Your task to perform on an android device: uninstall "Google Play services" Image 0: 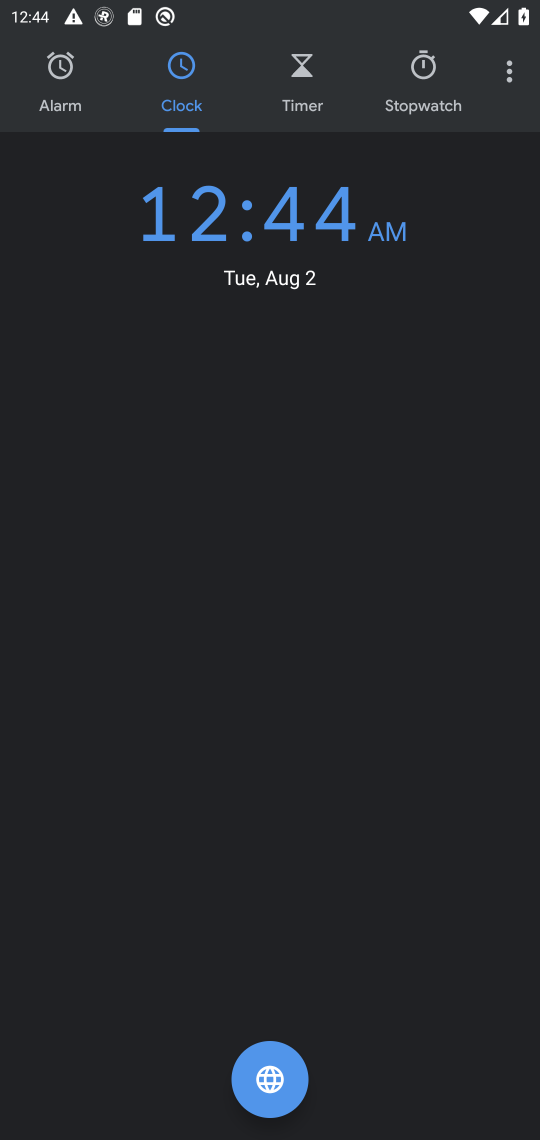
Step 0: press home button
Your task to perform on an android device: uninstall "Google Play services" Image 1: 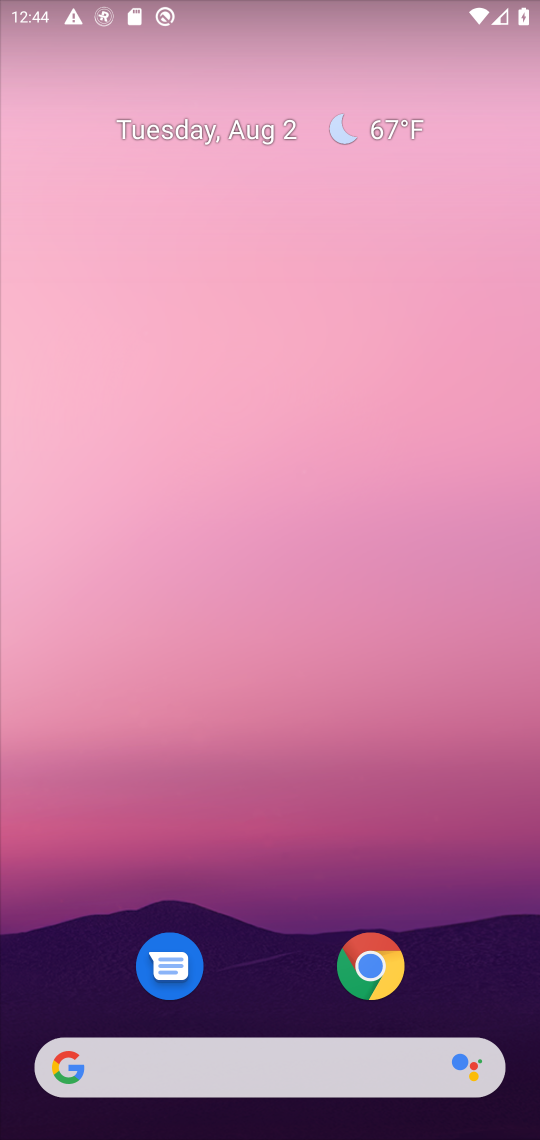
Step 1: drag from (267, 846) to (336, 139)
Your task to perform on an android device: uninstall "Google Play services" Image 2: 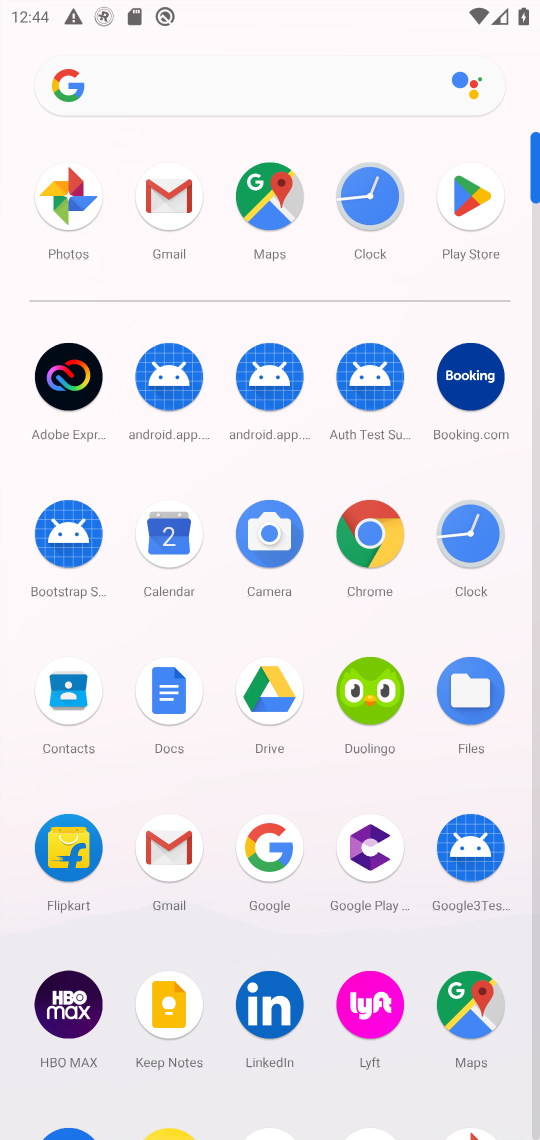
Step 2: click (478, 216)
Your task to perform on an android device: uninstall "Google Play services" Image 3: 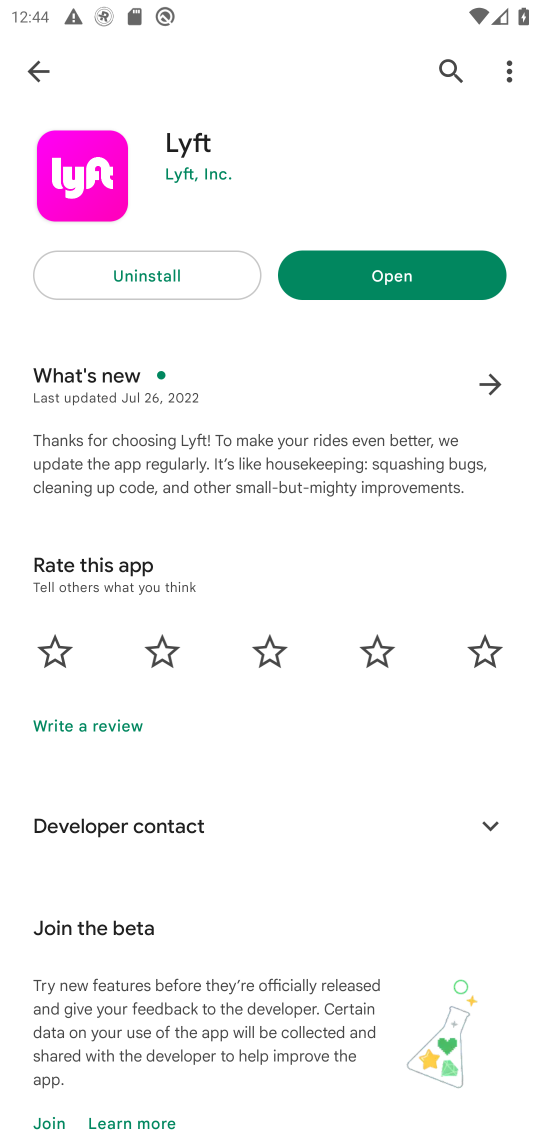
Step 3: click (452, 73)
Your task to perform on an android device: uninstall "Google Play services" Image 4: 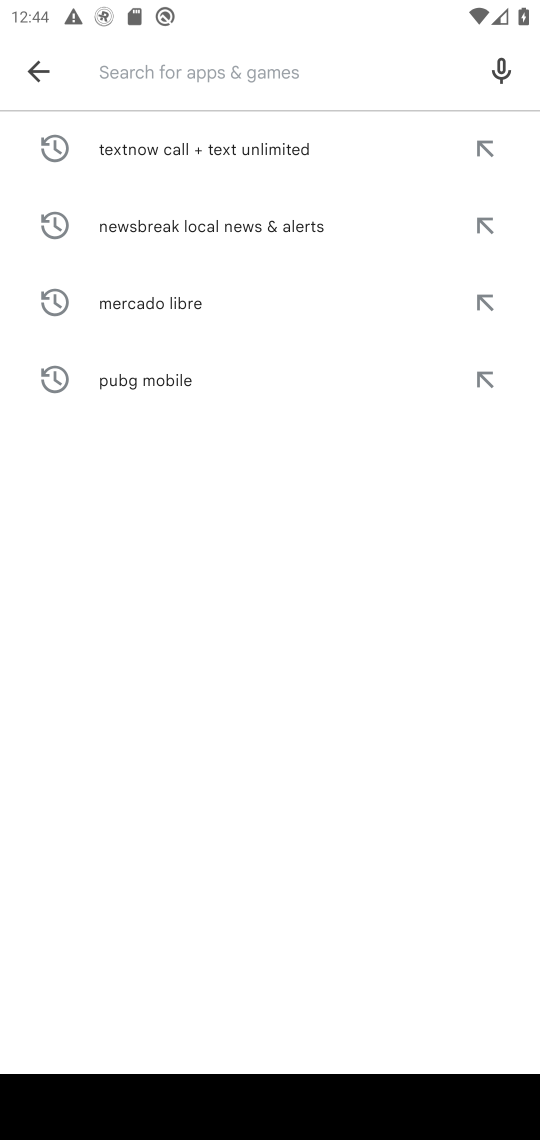
Step 4: click (262, 71)
Your task to perform on an android device: uninstall "Google Play services" Image 5: 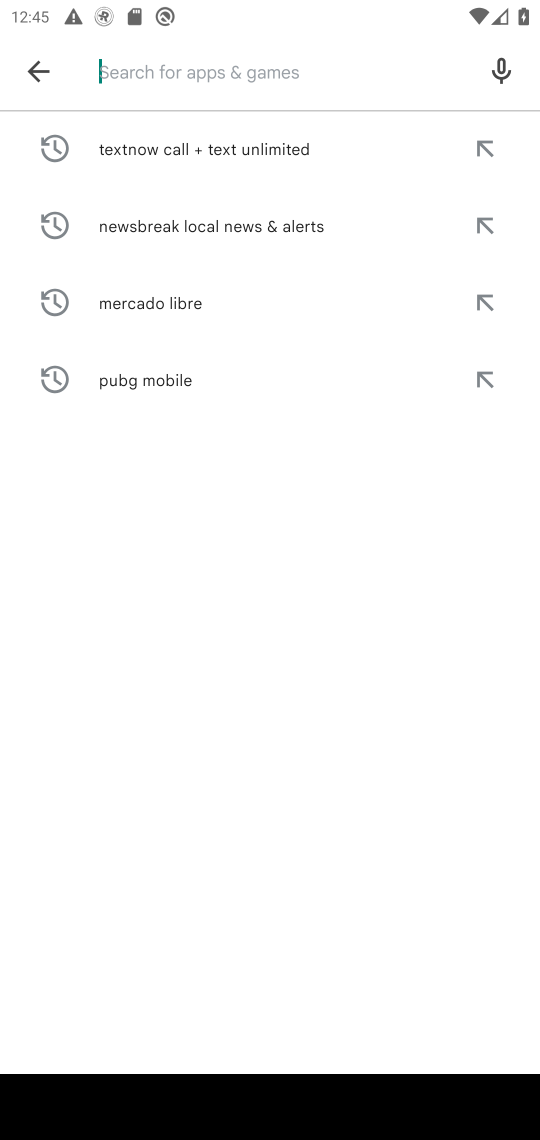
Step 5: type "google play services"
Your task to perform on an android device: uninstall "Google Play services" Image 6: 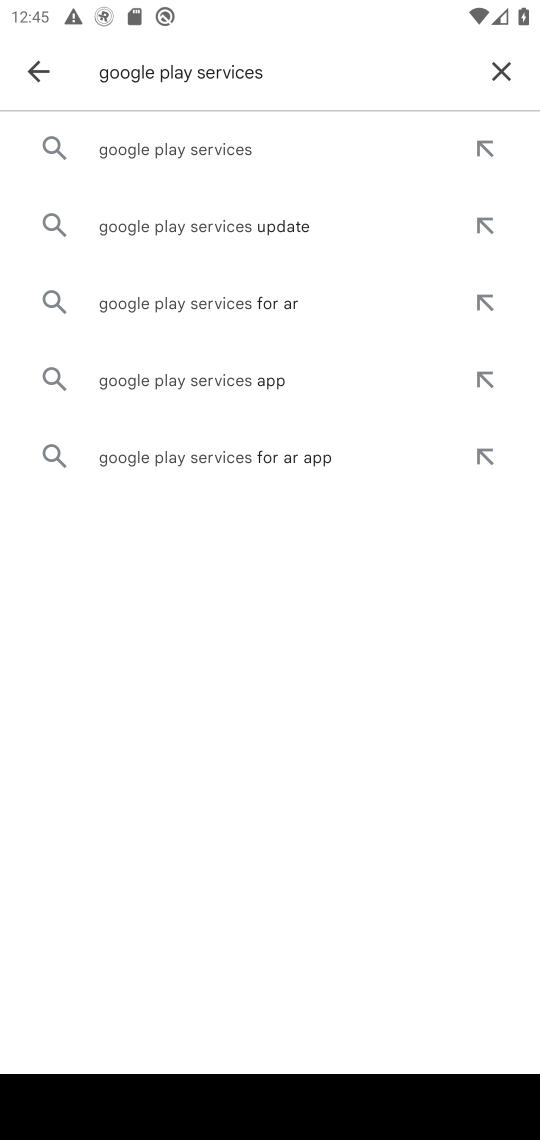
Step 6: click (227, 149)
Your task to perform on an android device: uninstall "Google Play services" Image 7: 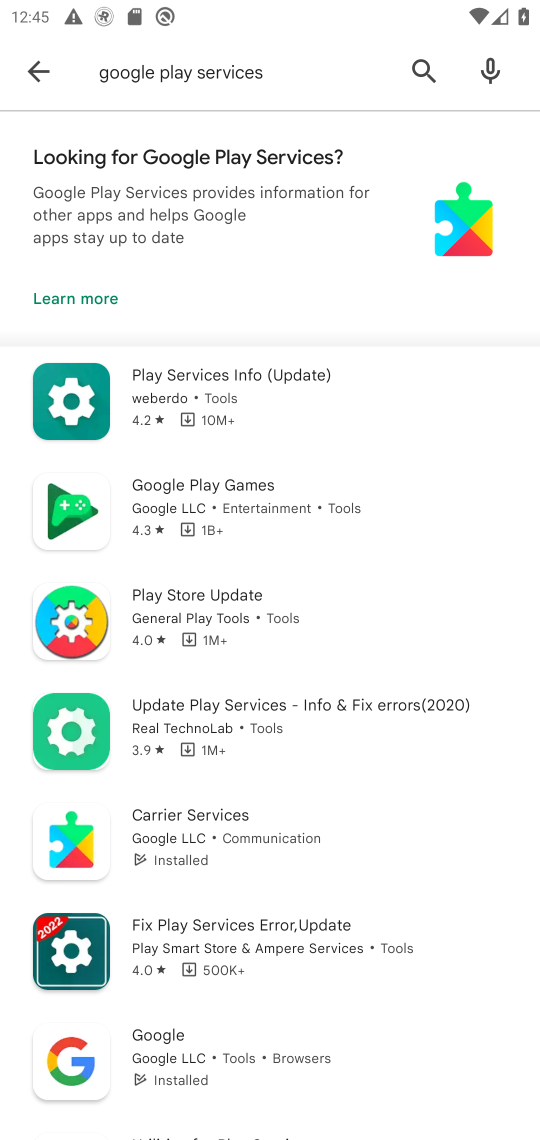
Step 7: task complete